Your task to perform on an android device: Search for sushi restaurants on Maps Image 0: 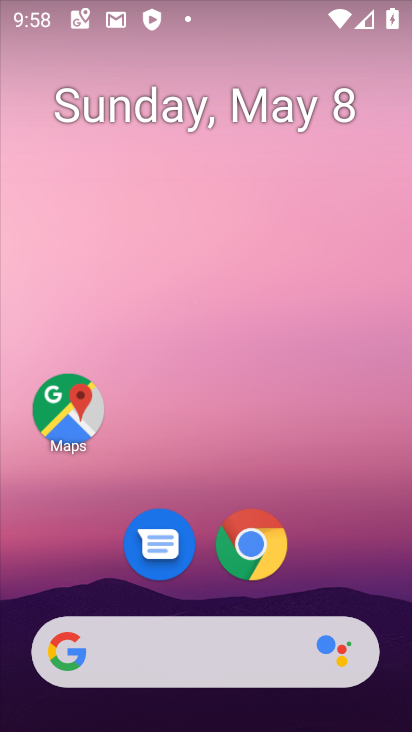
Step 0: drag from (339, 557) to (282, 121)
Your task to perform on an android device: Search for sushi restaurants on Maps Image 1: 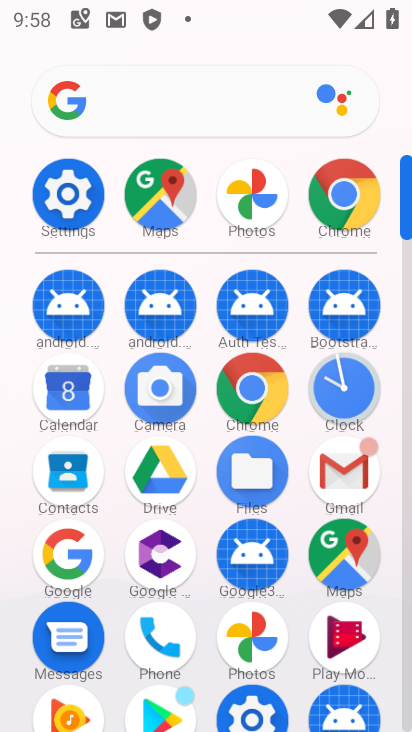
Step 1: click (341, 570)
Your task to perform on an android device: Search for sushi restaurants on Maps Image 2: 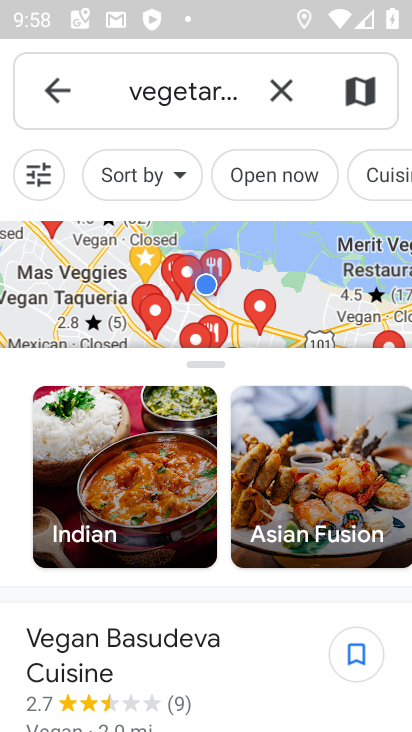
Step 2: click (274, 88)
Your task to perform on an android device: Search for sushi restaurants on Maps Image 3: 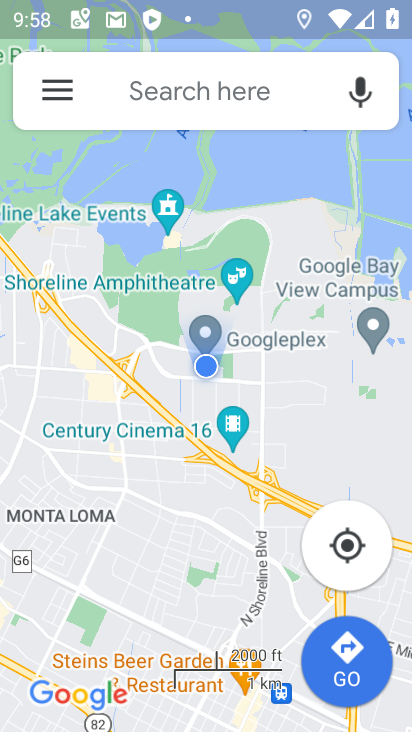
Step 3: click (274, 88)
Your task to perform on an android device: Search for sushi restaurants on Maps Image 4: 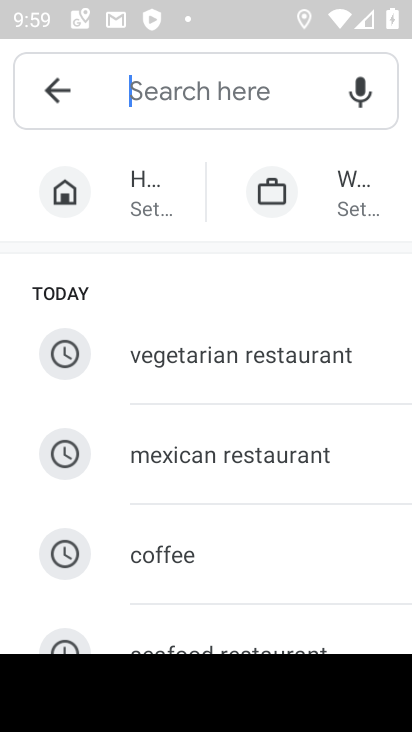
Step 4: type "sushi"
Your task to perform on an android device: Search for sushi restaurants on Maps Image 5: 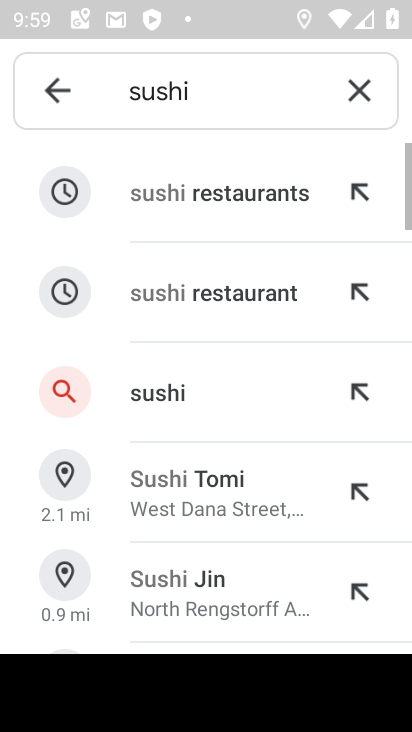
Step 5: click (218, 172)
Your task to perform on an android device: Search for sushi restaurants on Maps Image 6: 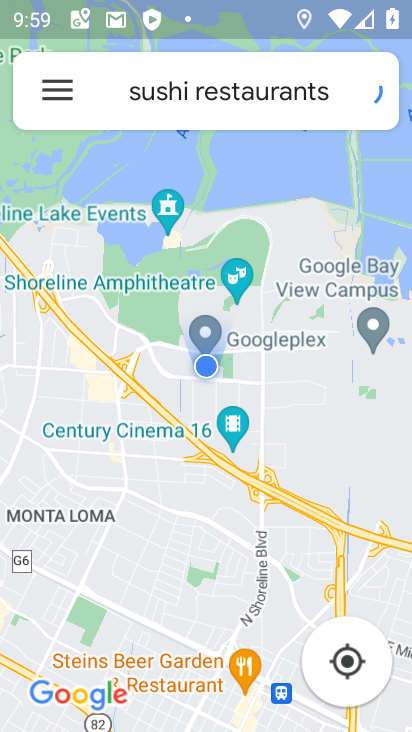
Step 6: task complete